Your task to perform on an android device: What is the recent news? Image 0: 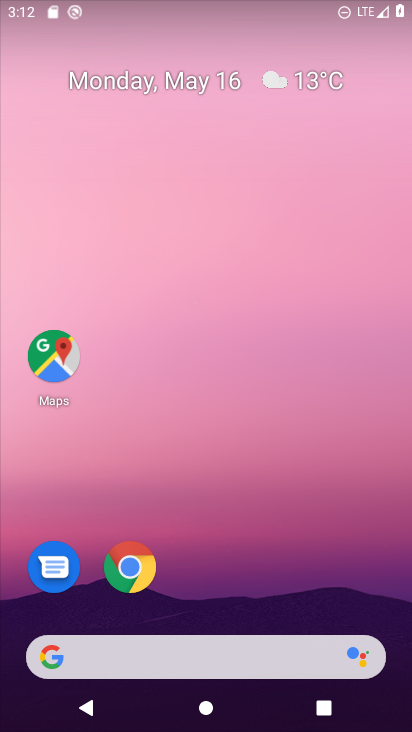
Step 0: drag from (140, 412) to (407, 380)
Your task to perform on an android device: What is the recent news? Image 1: 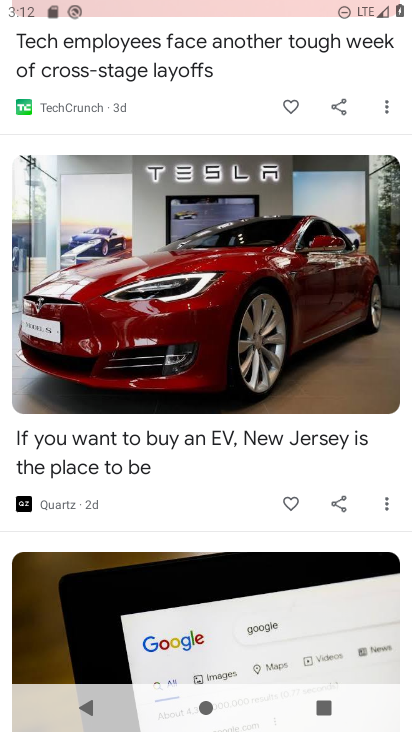
Step 1: task complete